Your task to perform on an android device: see sites visited before in the chrome app Image 0: 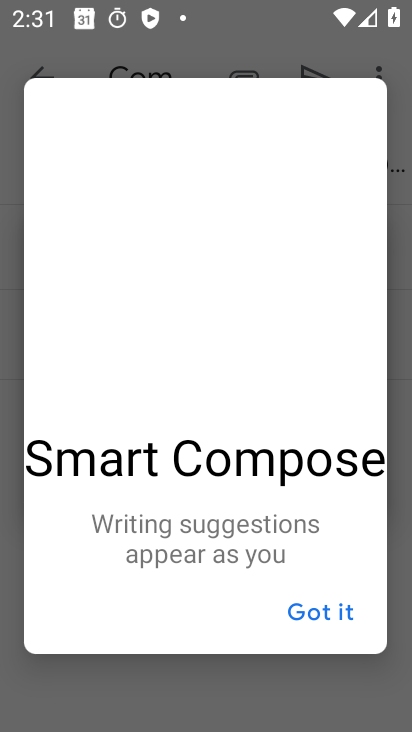
Step 0: press back button
Your task to perform on an android device: see sites visited before in the chrome app Image 1: 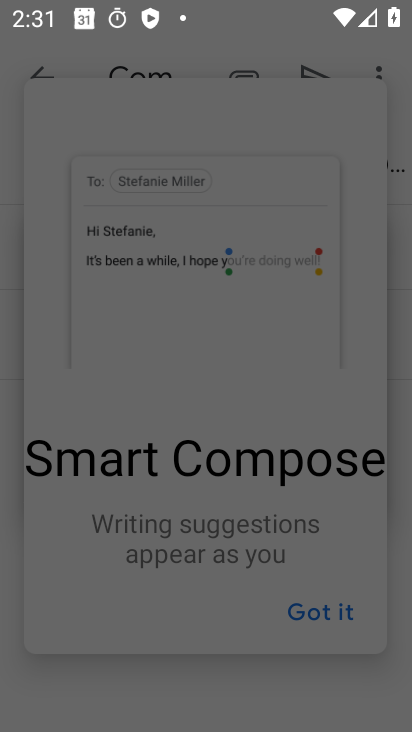
Step 1: press home button
Your task to perform on an android device: see sites visited before in the chrome app Image 2: 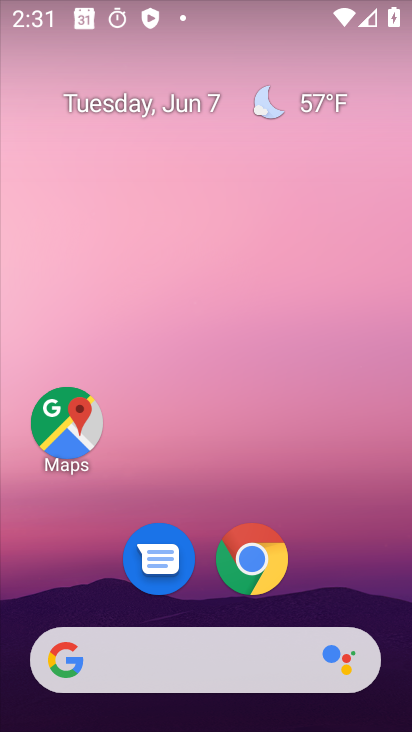
Step 2: drag from (324, 590) to (223, 17)
Your task to perform on an android device: see sites visited before in the chrome app Image 3: 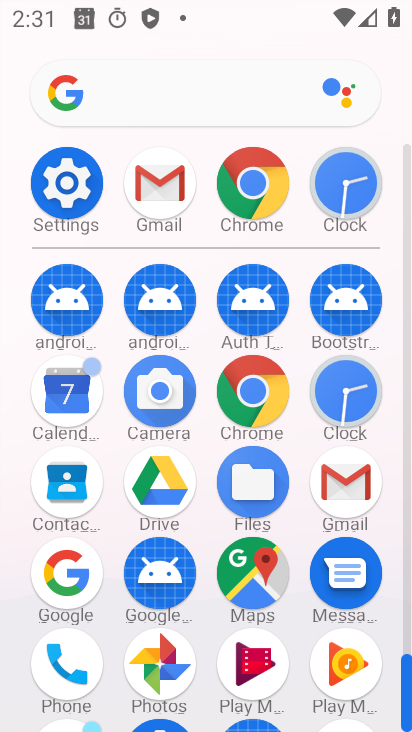
Step 3: drag from (3, 588) to (19, 206)
Your task to perform on an android device: see sites visited before in the chrome app Image 4: 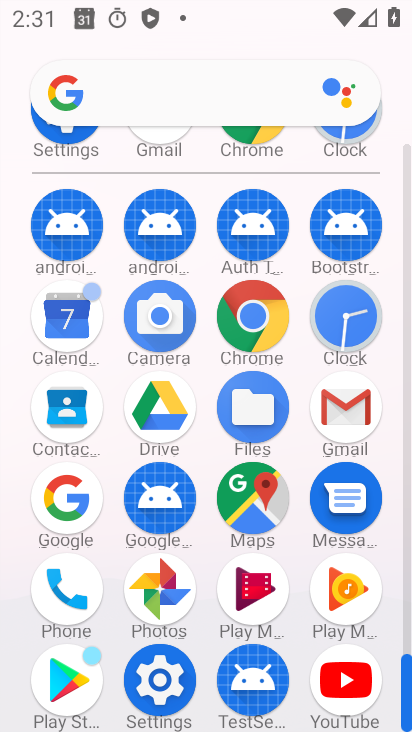
Step 4: click (248, 308)
Your task to perform on an android device: see sites visited before in the chrome app Image 5: 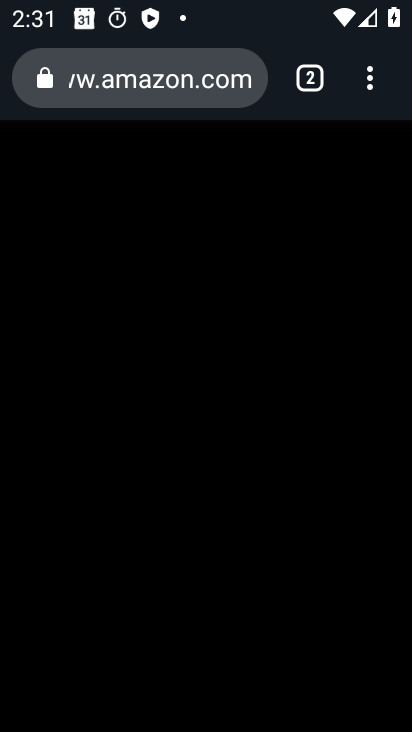
Step 5: task complete